Your task to perform on an android device: turn on improve location accuracy Image 0: 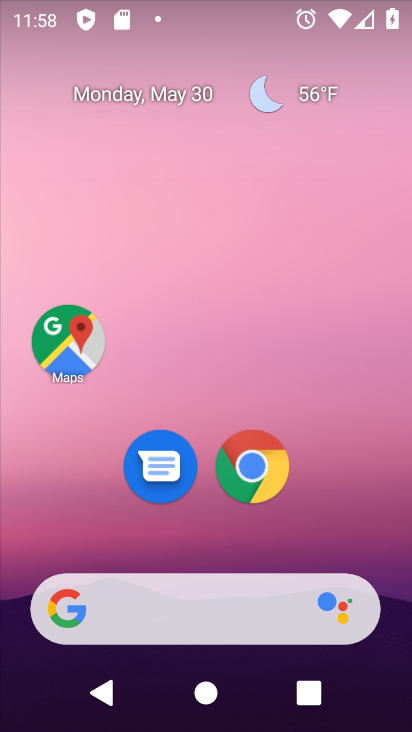
Step 0: drag from (254, 611) to (230, 57)
Your task to perform on an android device: turn on improve location accuracy Image 1: 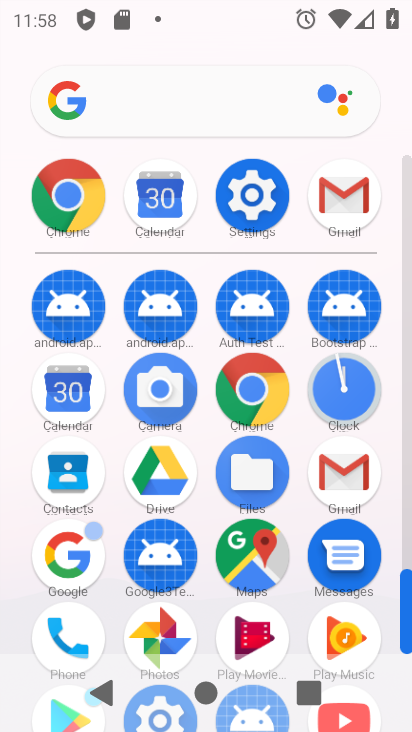
Step 1: click (248, 202)
Your task to perform on an android device: turn on improve location accuracy Image 2: 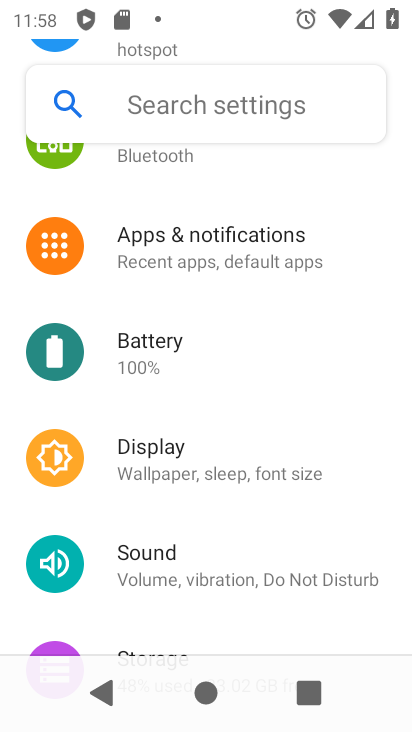
Step 2: drag from (174, 488) to (140, 43)
Your task to perform on an android device: turn on improve location accuracy Image 3: 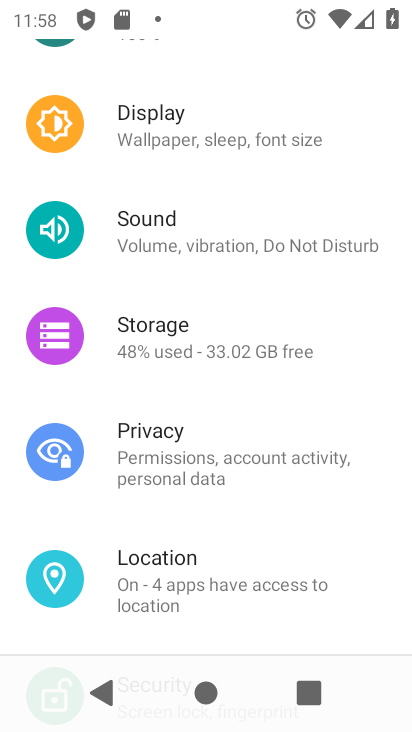
Step 3: click (160, 567)
Your task to perform on an android device: turn on improve location accuracy Image 4: 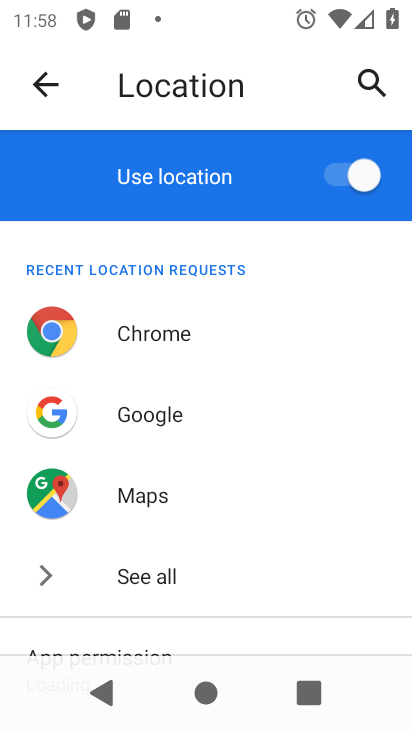
Step 4: drag from (239, 487) to (236, 42)
Your task to perform on an android device: turn on improve location accuracy Image 5: 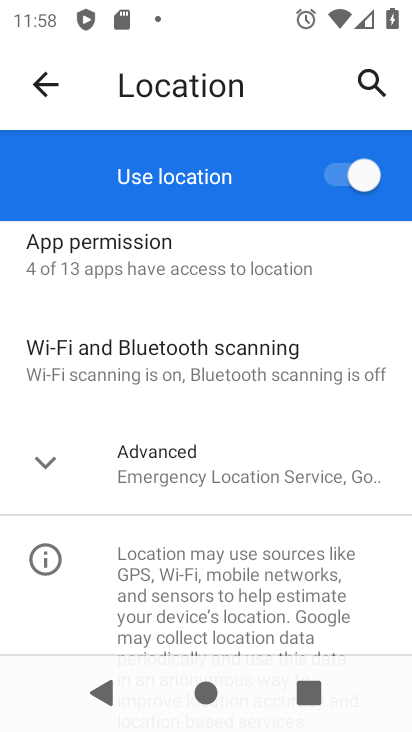
Step 5: click (210, 481)
Your task to perform on an android device: turn on improve location accuracy Image 6: 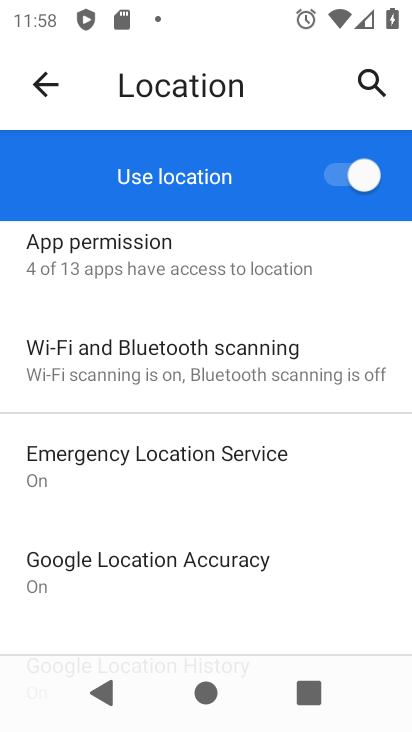
Step 6: click (213, 581)
Your task to perform on an android device: turn on improve location accuracy Image 7: 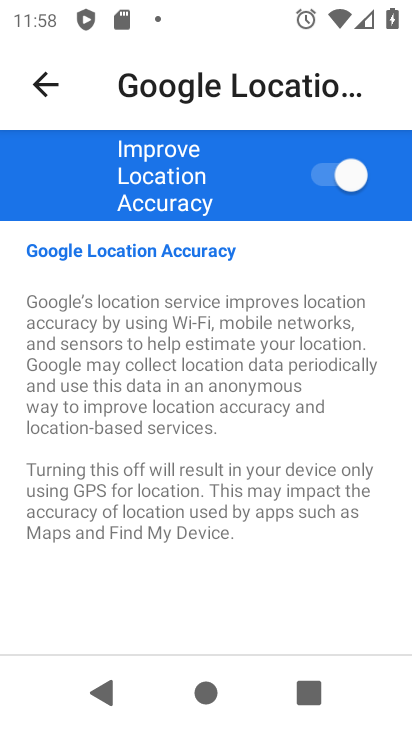
Step 7: task complete